Your task to perform on an android device: Open maps Image 0: 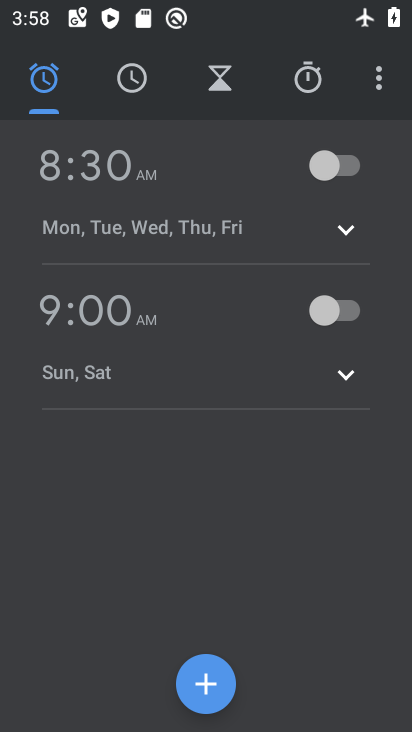
Step 0: press home button
Your task to perform on an android device: Open maps Image 1: 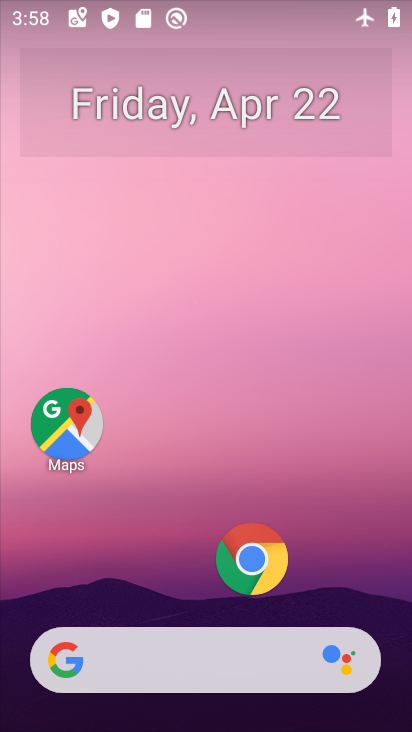
Step 1: click (73, 425)
Your task to perform on an android device: Open maps Image 2: 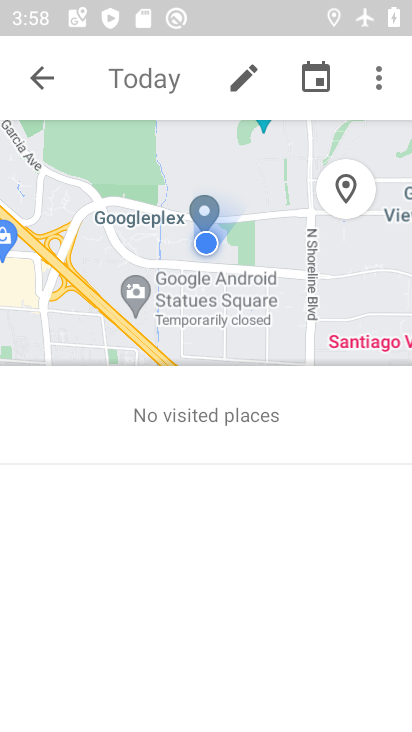
Step 2: click (40, 82)
Your task to perform on an android device: Open maps Image 3: 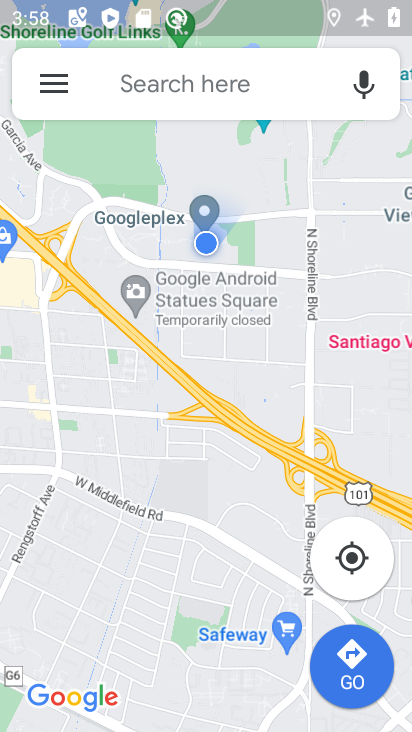
Step 3: task complete